Your task to perform on an android device: Search for Italian restaurants on Maps Image 0: 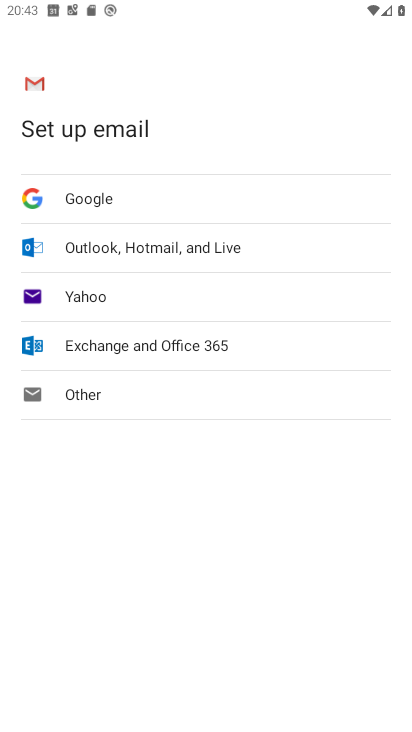
Step 0: press home button
Your task to perform on an android device: Search for Italian restaurants on Maps Image 1: 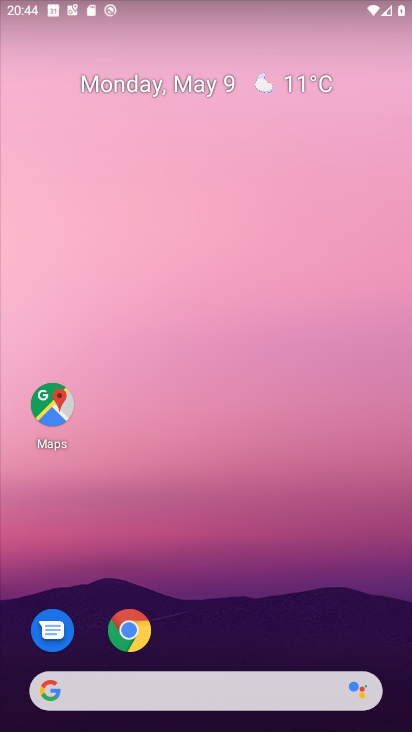
Step 1: click (57, 391)
Your task to perform on an android device: Search for Italian restaurants on Maps Image 2: 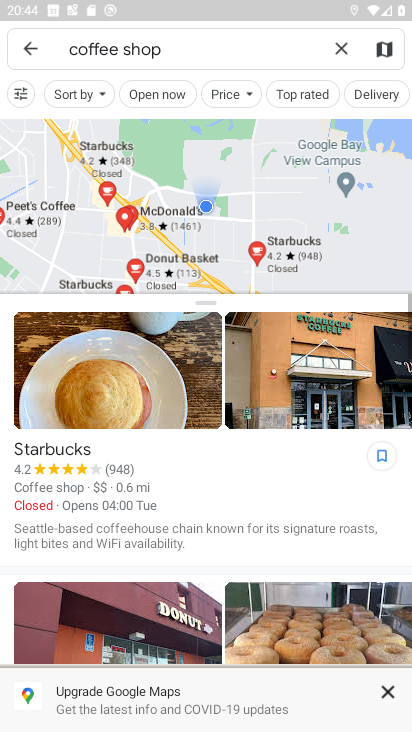
Step 2: click (348, 56)
Your task to perform on an android device: Search for Italian restaurants on Maps Image 3: 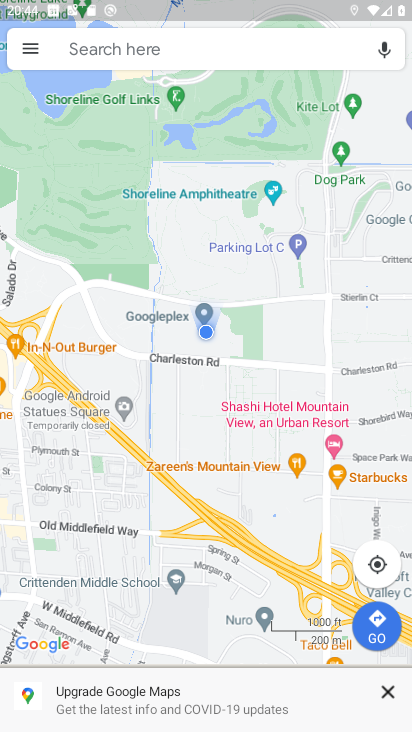
Step 3: click (232, 50)
Your task to perform on an android device: Search for Italian restaurants on Maps Image 4: 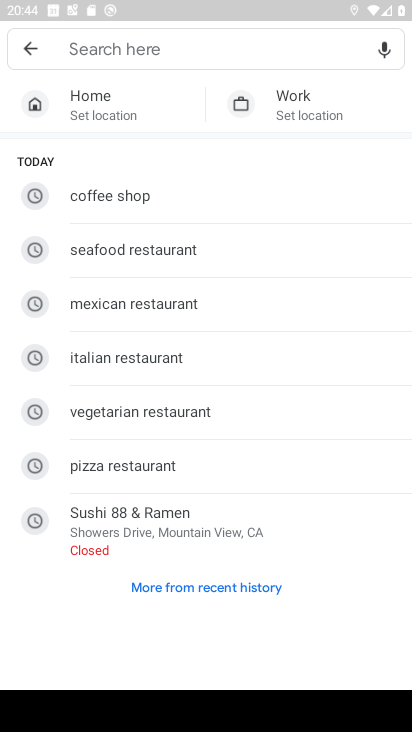
Step 4: click (179, 355)
Your task to perform on an android device: Search for Italian restaurants on Maps Image 5: 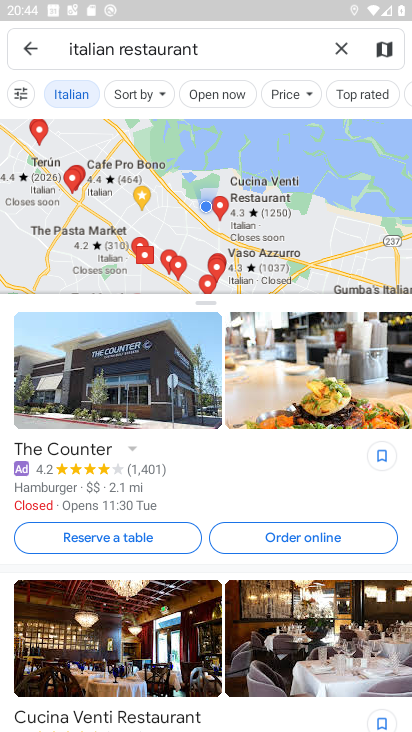
Step 5: task complete